Your task to perform on an android device: Open Android settings Image 0: 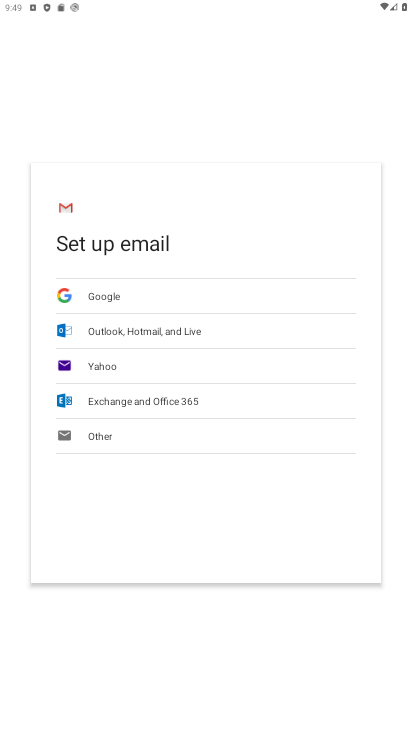
Step 0: press home button
Your task to perform on an android device: Open Android settings Image 1: 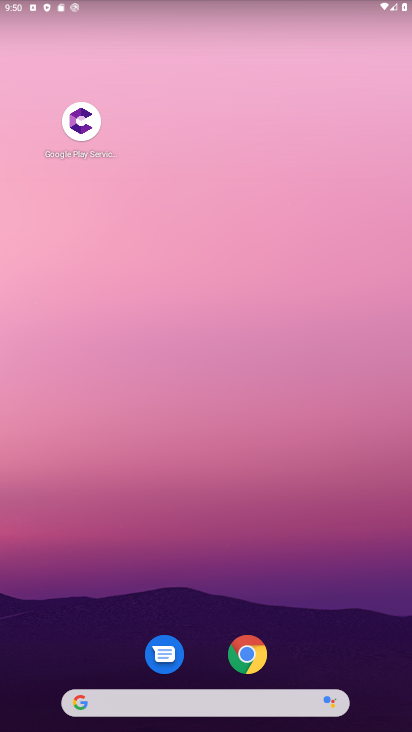
Step 1: drag from (101, 551) to (267, 18)
Your task to perform on an android device: Open Android settings Image 2: 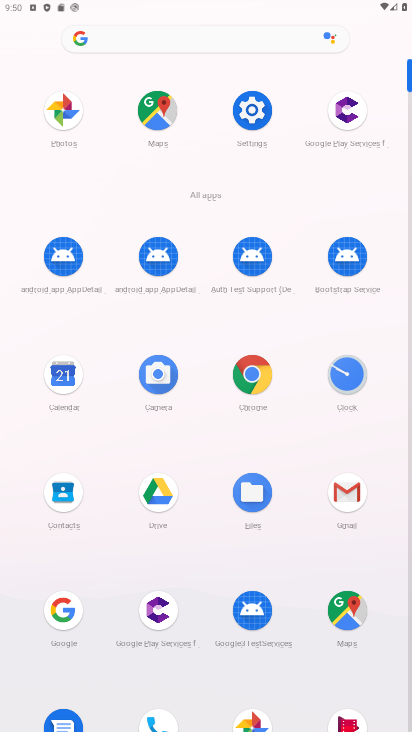
Step 2: drag from (187, 597) to (252, 275)
Your task to perform on an android device: Open Android settings Image 3: 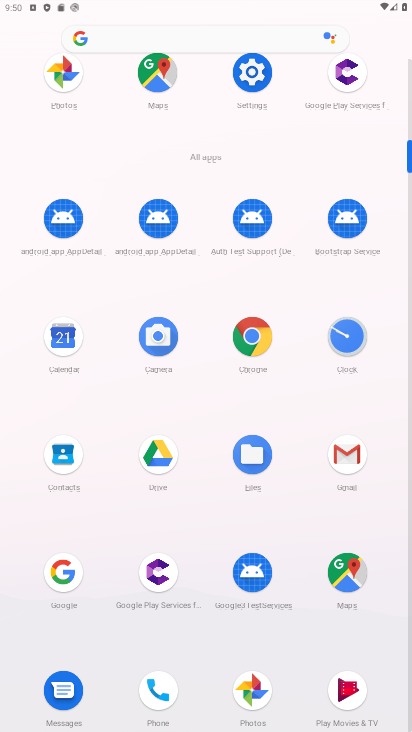
Step 3: drag from (203, 648) to (219, 434)
Your task to perform on an android device: Open Android settings Image 4: 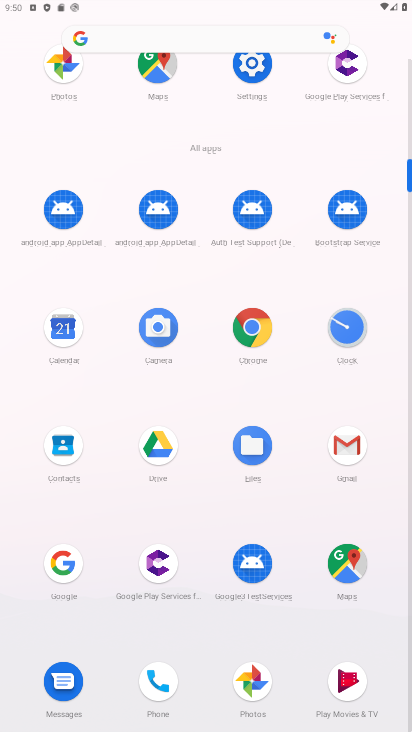
Step 4: click (251, 84)
Your task to perform on an android device: Open Android settings Image 5: 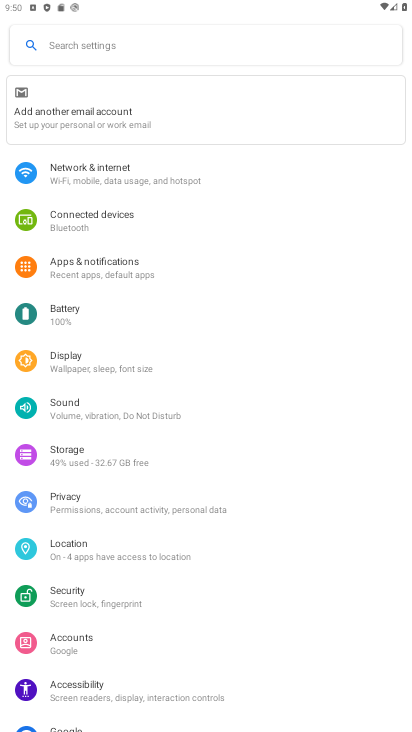
Step 5: drag from (274, 679) to (275, 424)
Your task to perform on an android device: Open Android settings Image 6: 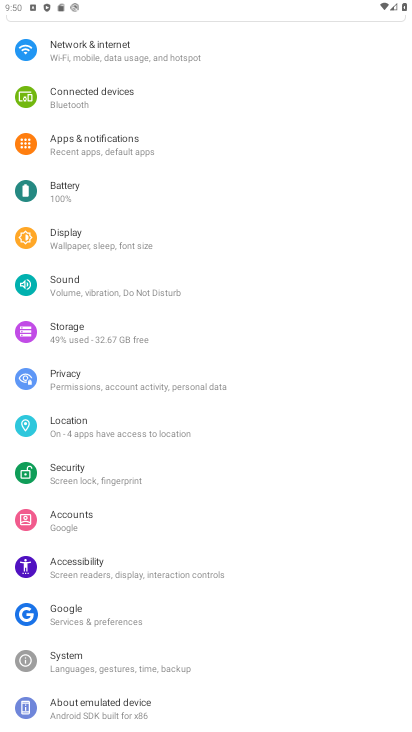
Step 6: click (108, 686)
Your task to perform on an android device: Open Android settings Image 7: 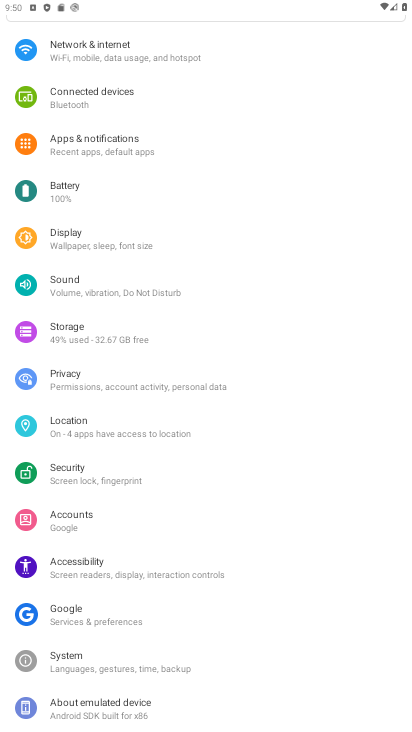
Step 7: click (100, 706)
Your task to perform on an android device: Open Android settings Image 8: 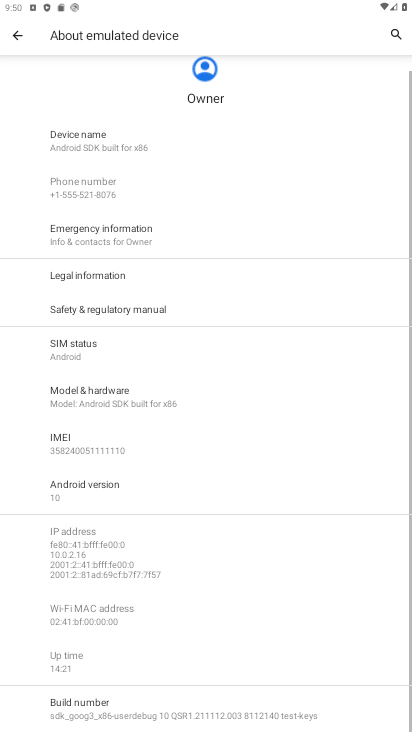
Step 8: click (98, 487)
Your task to perform on an android device: Open Android settings Image 9: 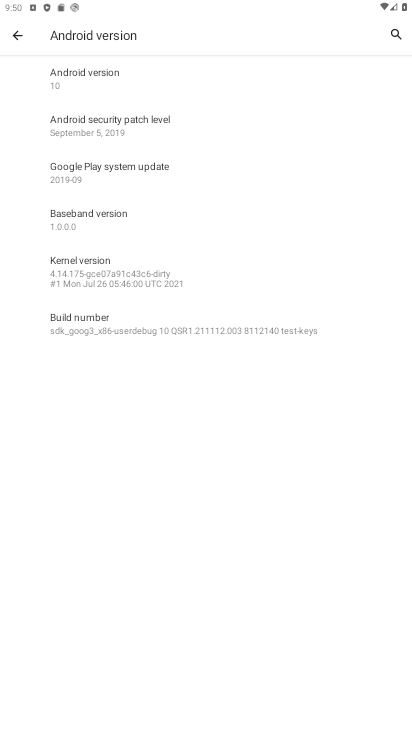
Step 9: task complete